Your task to perform on an android device: search for starred emails in the gmail app Image 0: 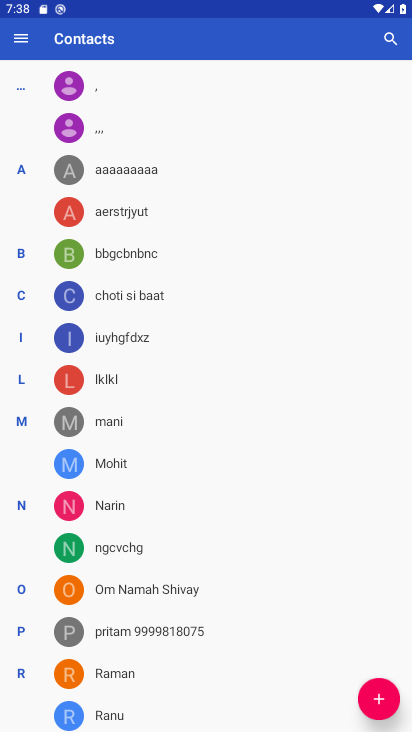
Step 0: press home button
Your task to perform on an android device: search for starred emails in the gmail app Image 1: 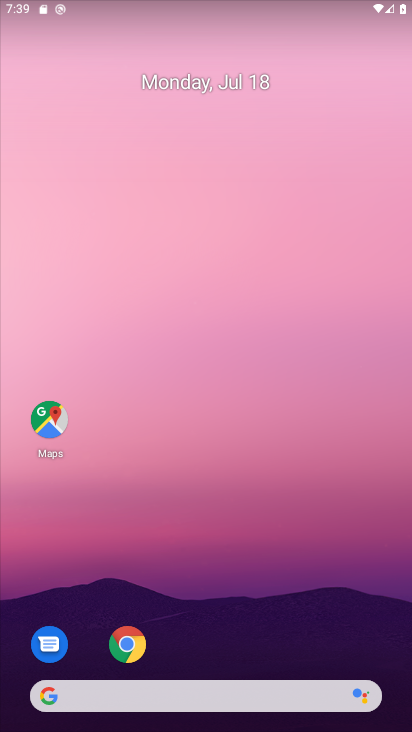
Step 1: drag from (291, 654) to (282, 96)
Your task to perform on an android device: search for starred emails in the gmail app Image 2: 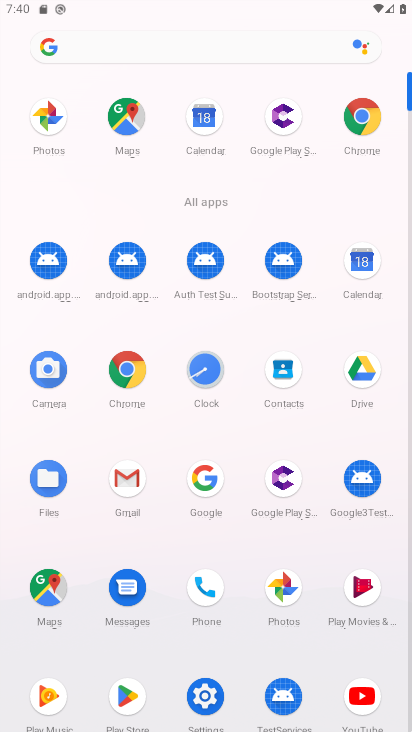
Step 2: click (142, 475)
Your task to perform on an android device: search for starred emails in the gmail app Image 3: 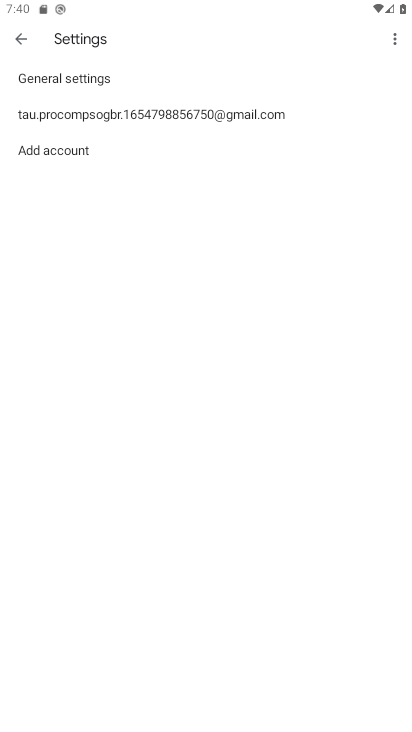
Step 3: click (23, 48)
Your task to perform on an android device: search for starred emails in the gmail app Image 4: 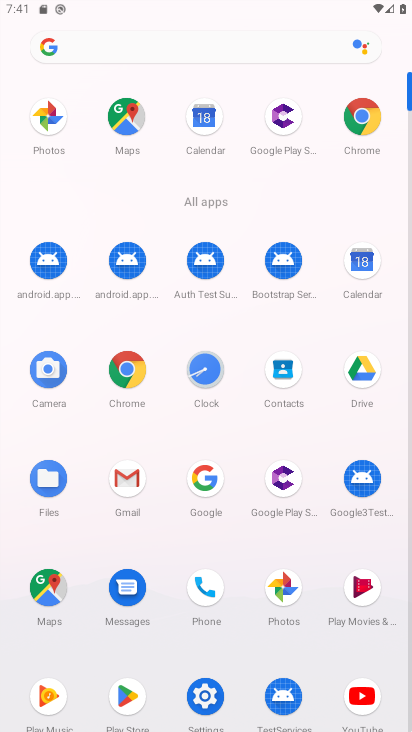
Step 4: click (124, 476)
Your task to perform on an android device: search for starred emails in the gmail app Image 5: 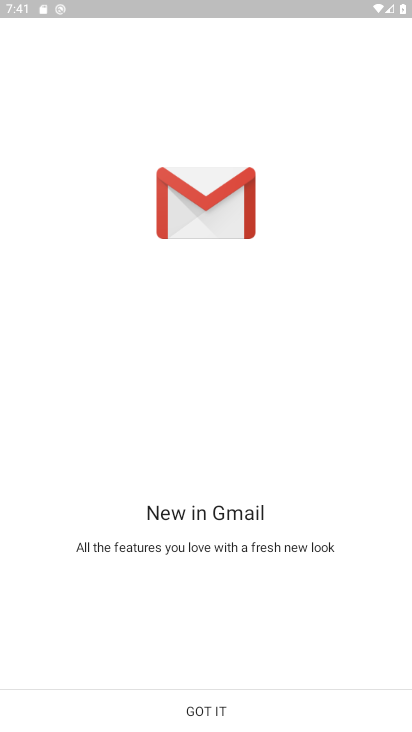
Step 5: click (190, 706)
Your task to perform on an android device: search for starred emails in the gmail app Image 6: 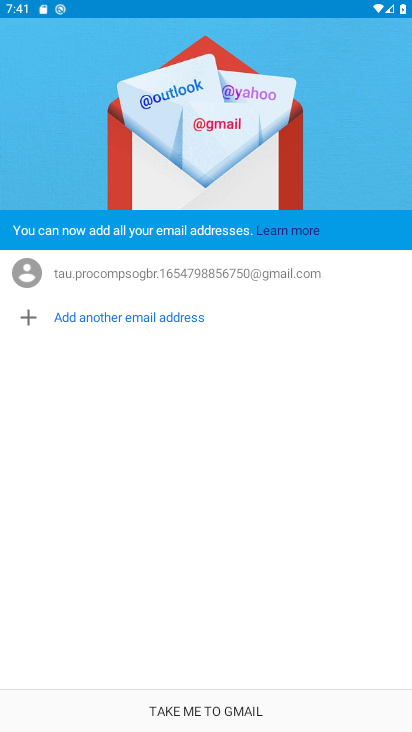
Step 6: click (190, 706)
Your task to perform on an android device: search for starred emails in the gmail app Image 7: 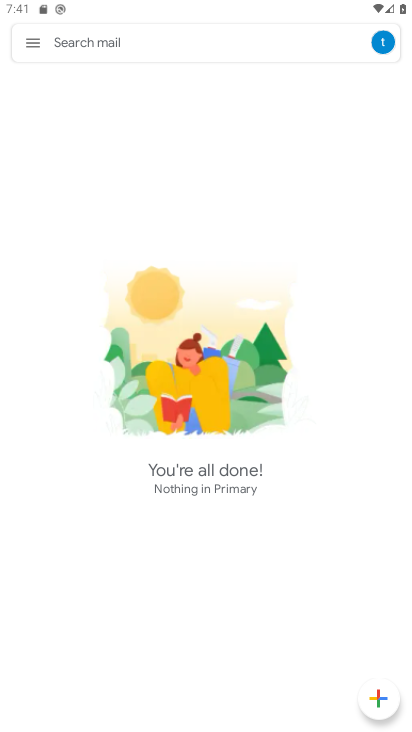
Step 7: task complete